Your task to perform on an android device: open app "WhatsApp Messenger" (install if not already installed) and go to login screen Image 0: 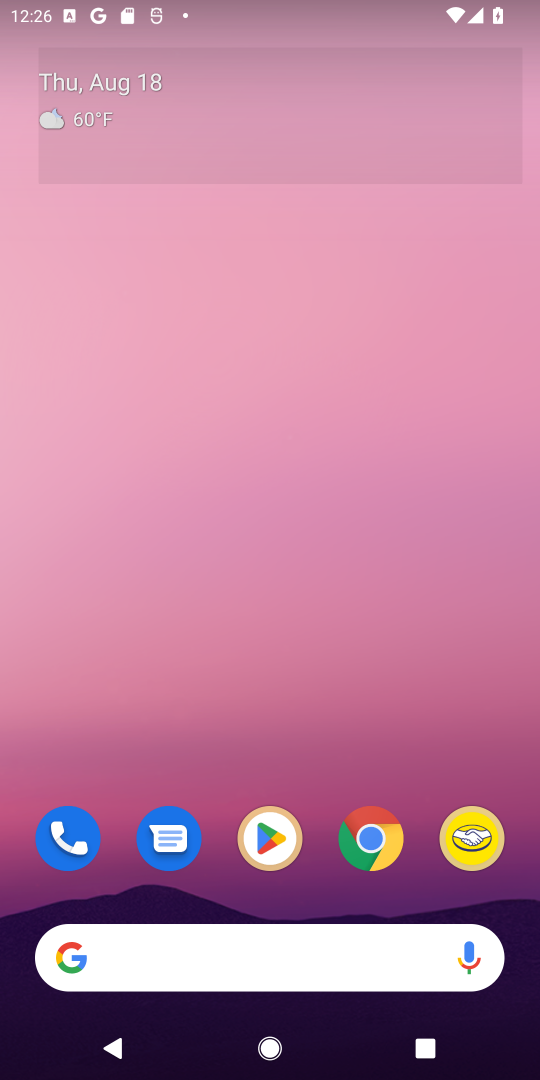
Step 0: click (264, 847)
Your task to perform on an android device: open app "WhatsApp Messenger" (install if not already installed) and go to login screen Image 1: 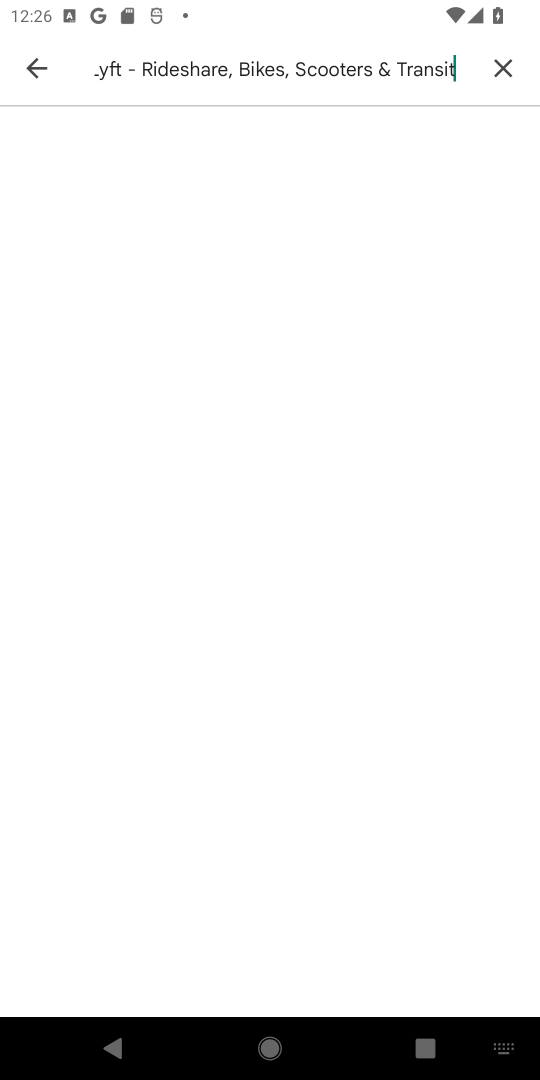
Step 1: click (493, 57)
Your task to perform on an android device: open app "WhatsApp Messenger" (install if not already installed) and go to login screen Image 2: 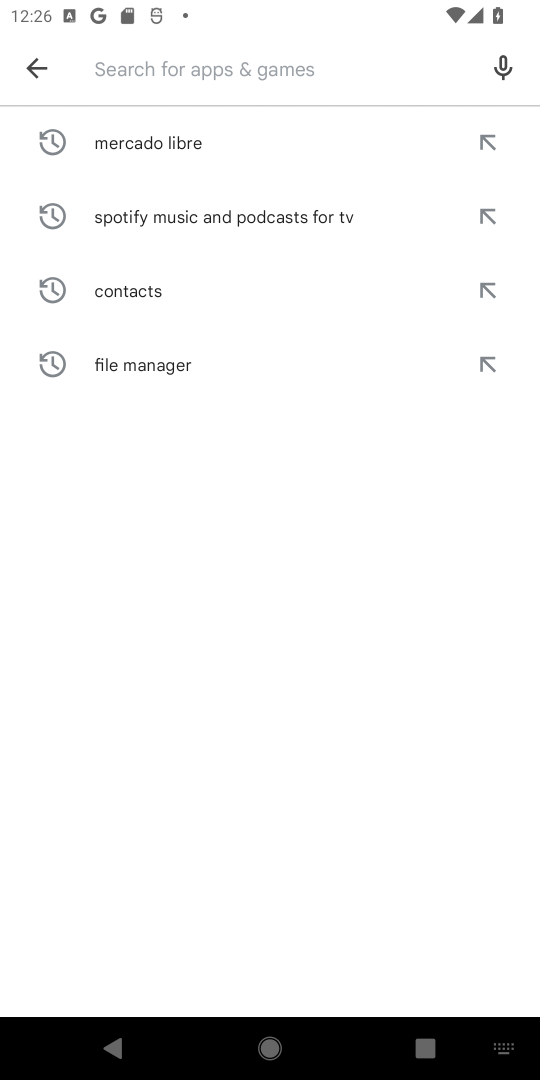
Step 2: type "WhatsApp Messenger"
Your task to perform on an android device: open app "WhatsApp Messenger" (install if not already installed) and go to login screen Image 3: 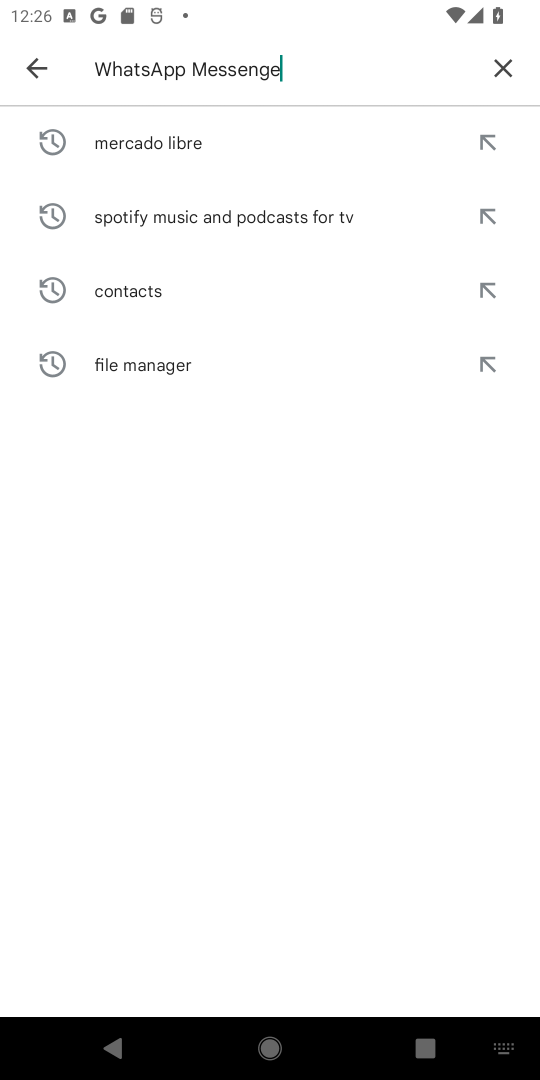
Step 3: type ""
Your task to perform on an android device: open app "WhatsApp Messenger" (install if not already installed) and go to login screen Image 4: 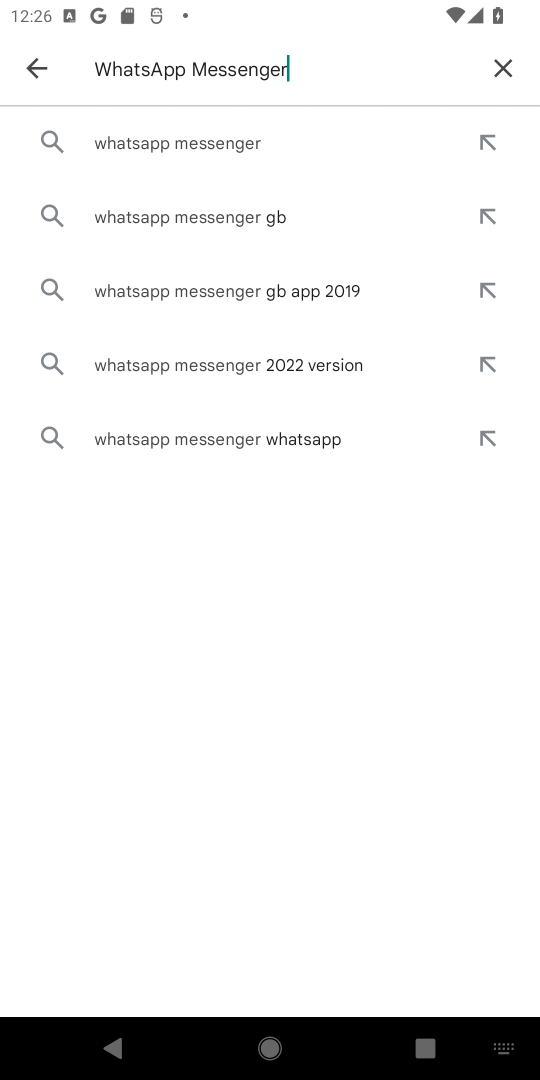
Step 4: click (204, 148)
Your task to perform on an android device: open app "WhatsApp Messenger" (install if not already installed) and go to login screen Image 5: 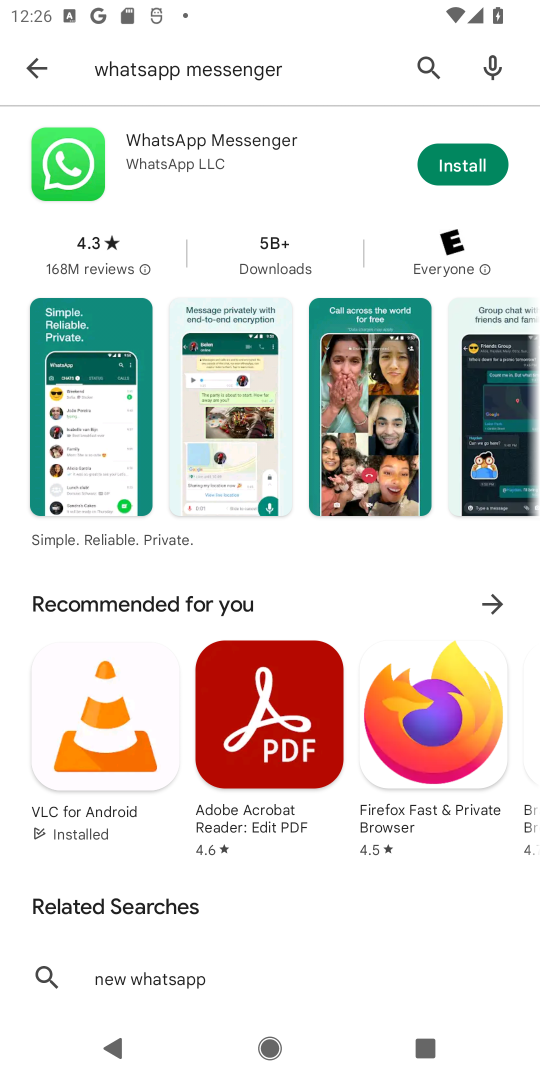
Step 5: click (462, 157)
Your task to perform on an android device: open app "WhatsApp Messenger" (install if not already installed) and go to login screen Image 6: 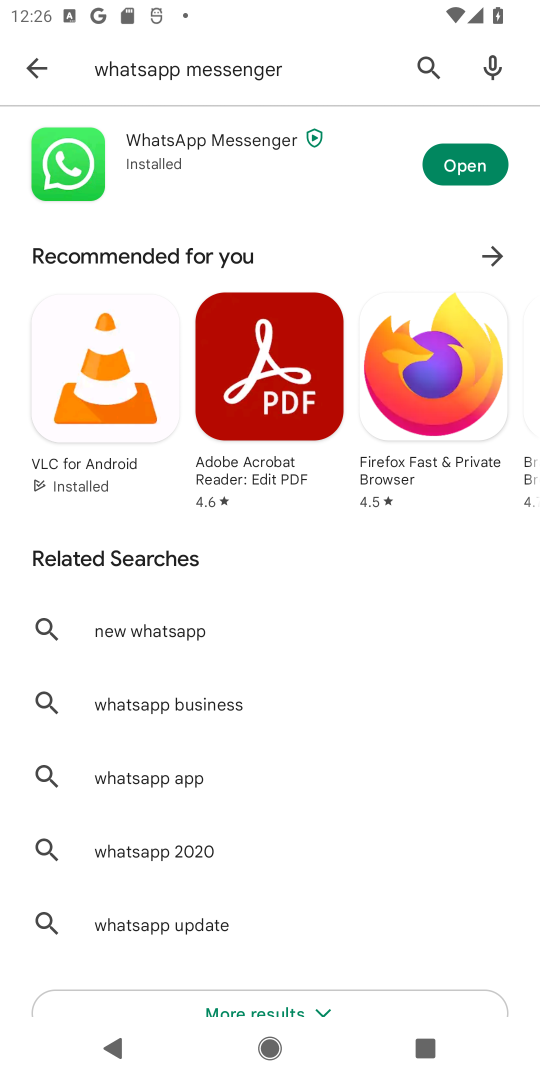
Step 6: click (470, 171)
Your task to perform on an android device: open app "WhatsApp Messenger" (install if not already installed) and go to login screen Image 7: 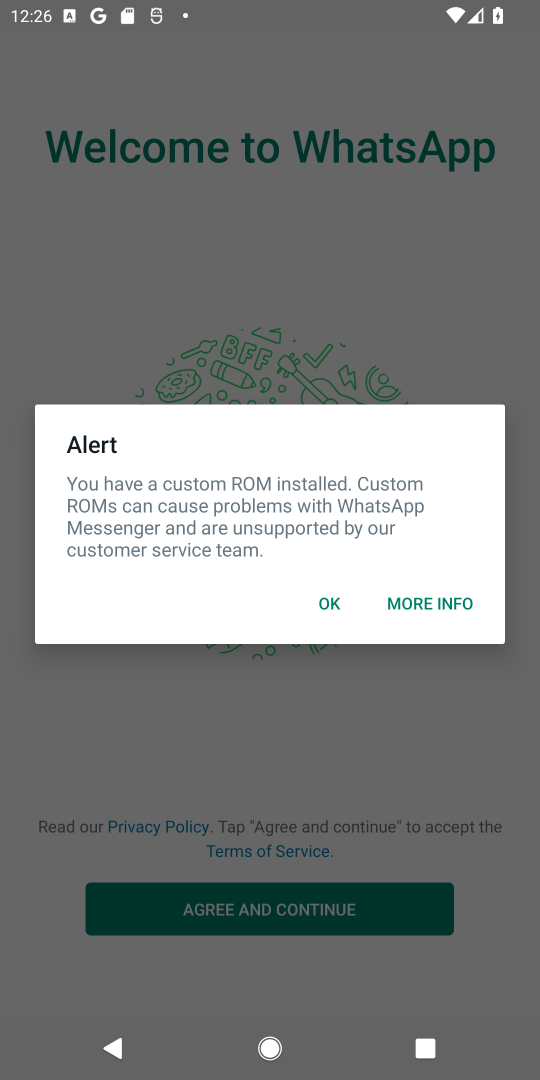
Step 7: click (330, 597)
Your task to perform on an android device: open app "WhatsApp Messenger" (install if not already installed) and go to login screen Image 8: 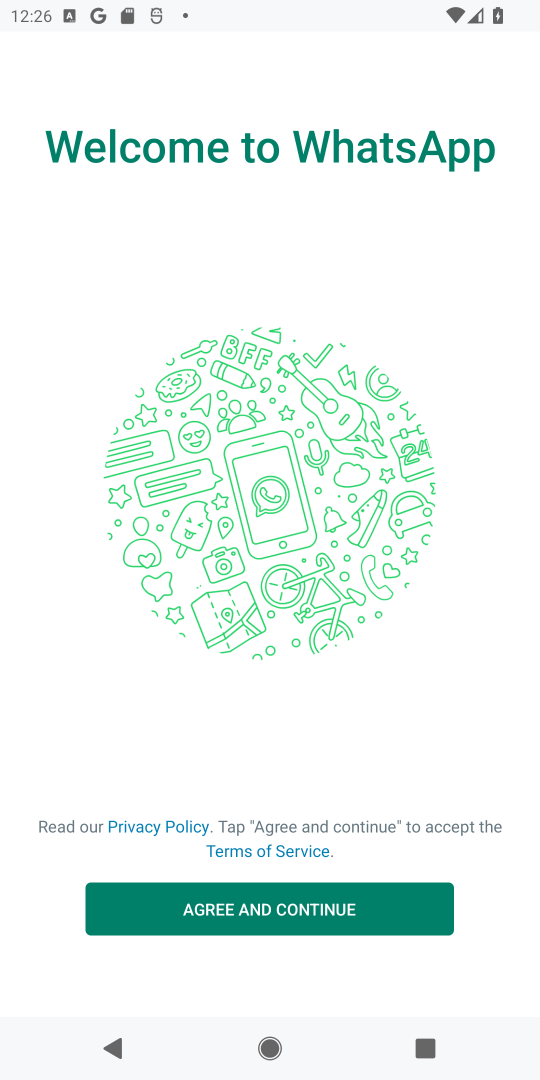
Step 8: task complete